Your task to perform on an android device: turn off airplane mode Image 0: 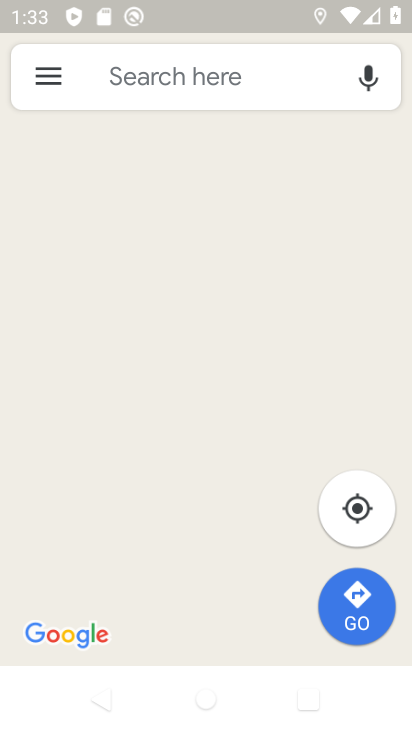
Step 0: press home button
Your task to perform on an android device: turn off airplane mode Image 1: 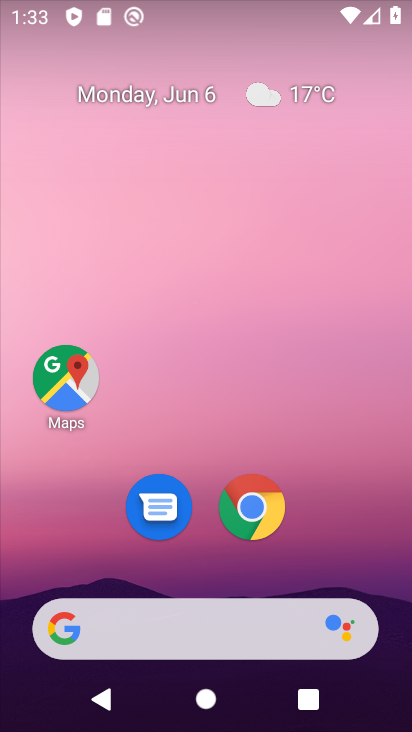
Step 1: task complete